Your task to perform on an android device: turn notification dots on Image 0: 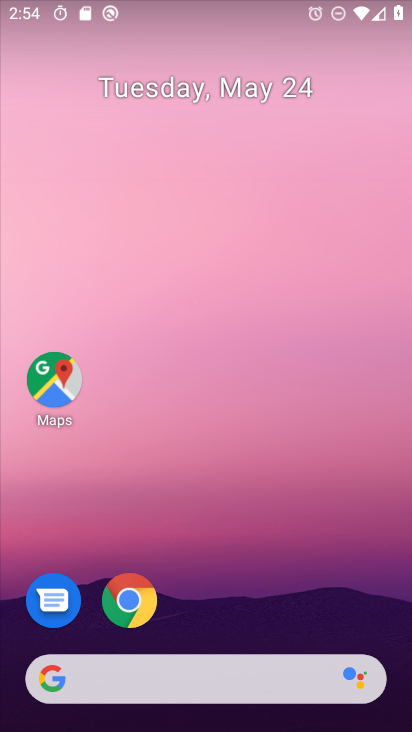
Step 0: drag from (322, 595) to (206, 111)
Your task to perform on an android device: turn notification dots on Image 1: 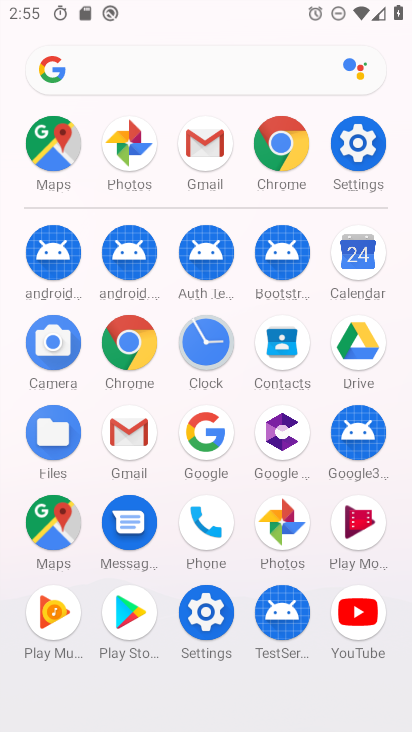
Step 1: click (359, 128)
Your task to perform on an android device: turn notification dots on Image 2: 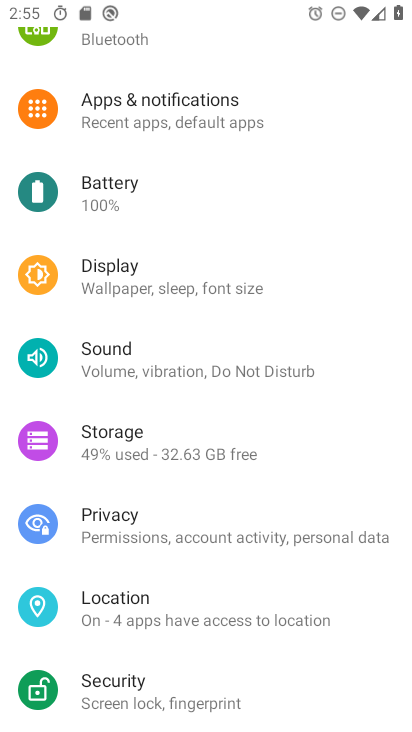
Step 2: click (164, 129)
Your task to perform on an android device: turn notification dots on Image 3: 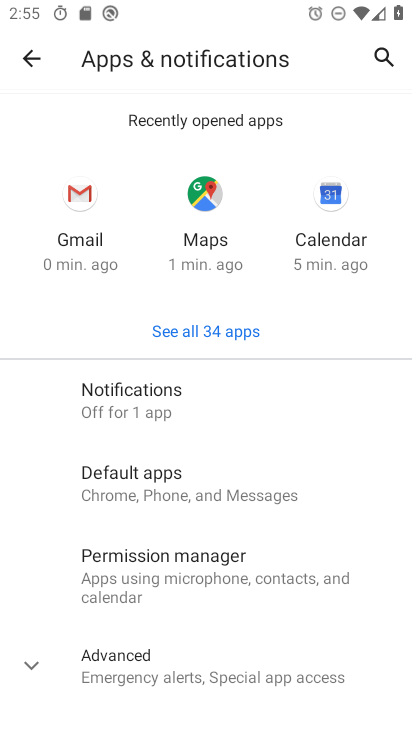
Step 3: click (186, 406)
Your task to perform on an android device: turn notification dots on Image 4: 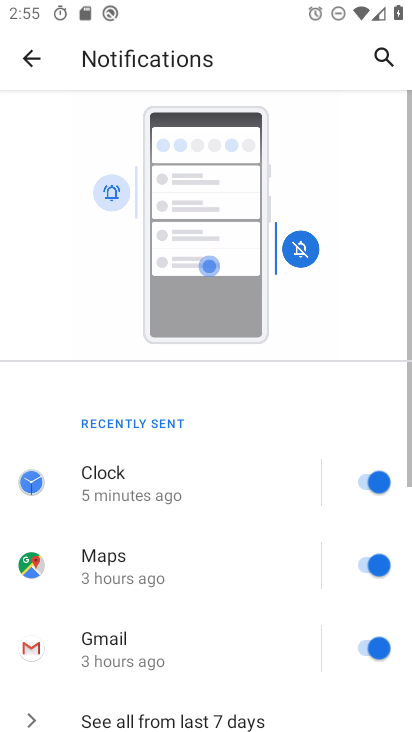
Step 4: drag from (181, 580) to (183, 79)
Your task to perform on an android device: turn notification dots on Image 5: 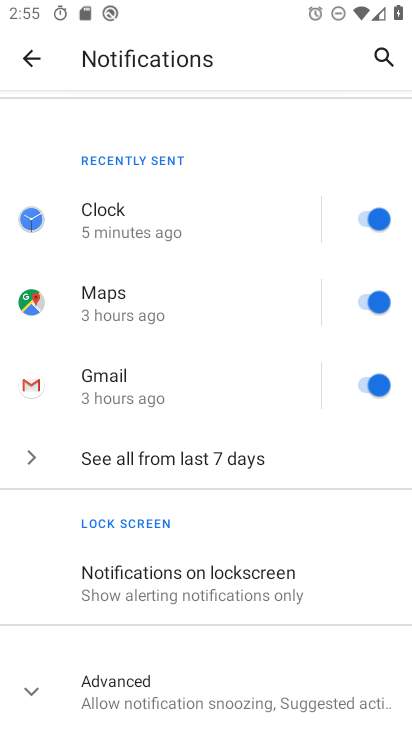
Step 5: click (105, 670)
Your task to perform on an android device: turn notification dots on Image 6: 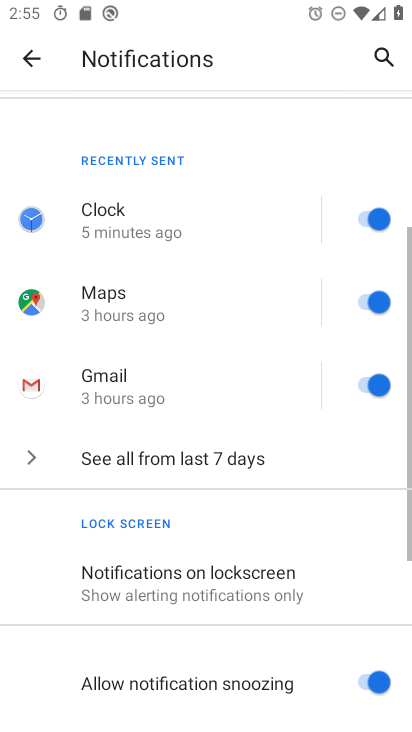
Step 6: drag from (194, 630) to (179, 113)
Your task to perform on an android device: turn notification dots on Image 7: 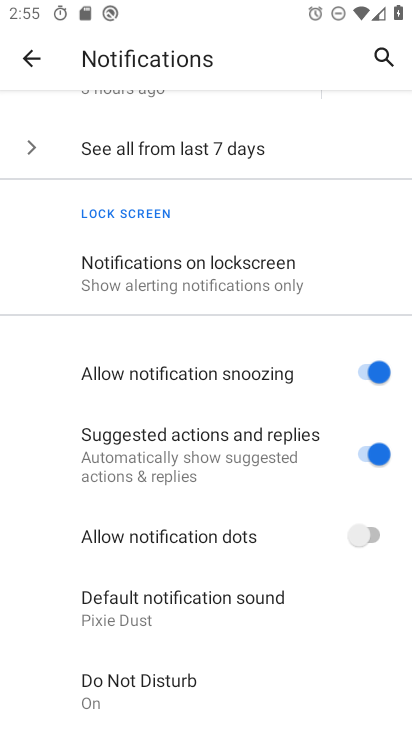
Step 7: click (369, 539)
Your task to perform on an android device: turn notification dots on Image 8: 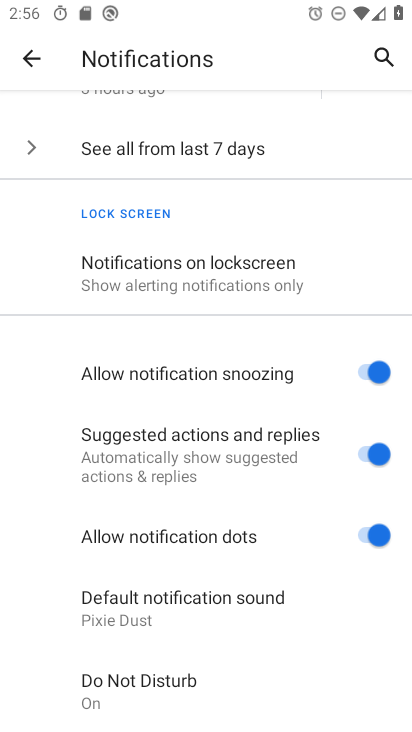
Step 8: task complete